Your task to perform on an android device: add a contact Image 0: 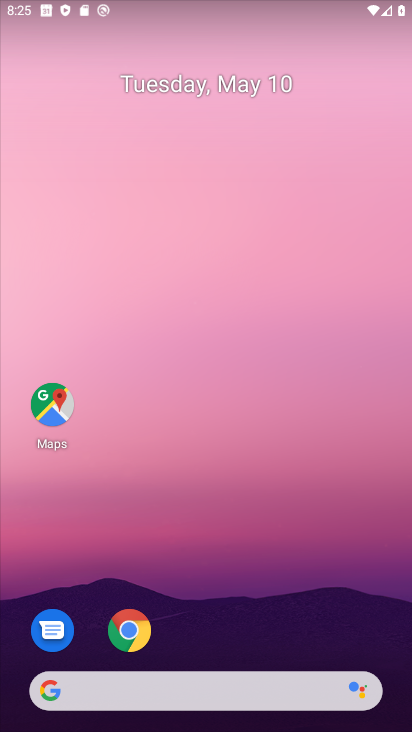
Step 0: drag from (165, 711) to (227, 225)
Your task to perform on an android device: add a contact Image 1: 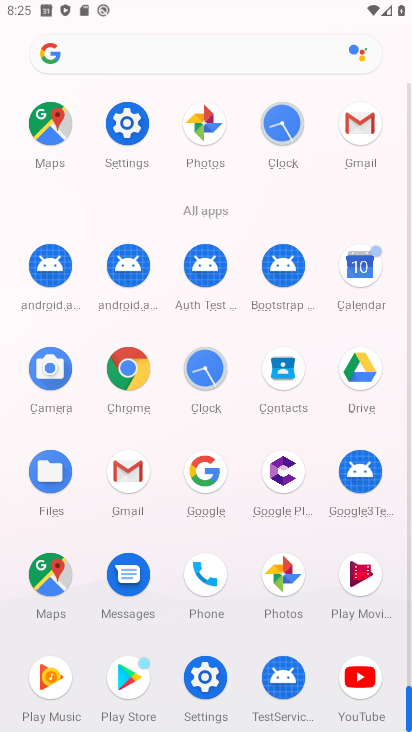
Step 1: click (292, 368)
Your task to perform on an android device: add a contact Image 2: 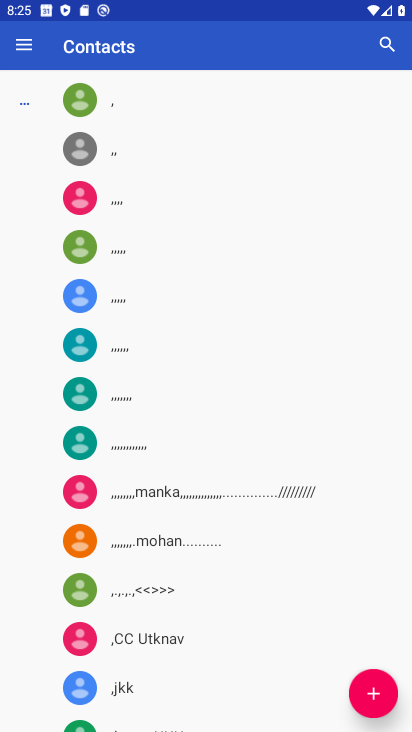
Step 2: click (371, 697)
Your task to perform on an android device: add a contact Image 3: 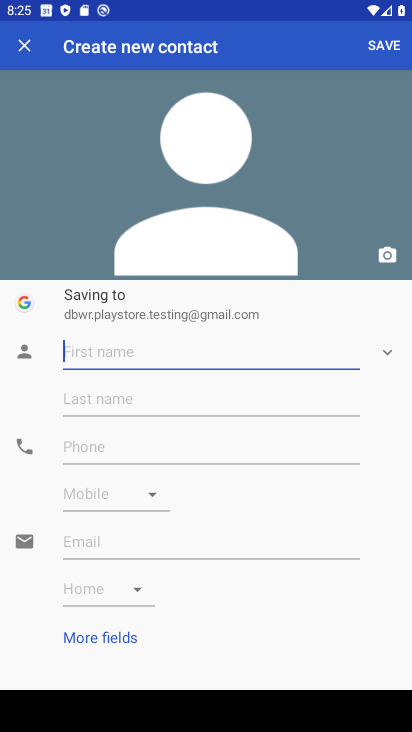
Step 3: type "jf,j"
Your task to perform on an android device: add a contact Image 4: 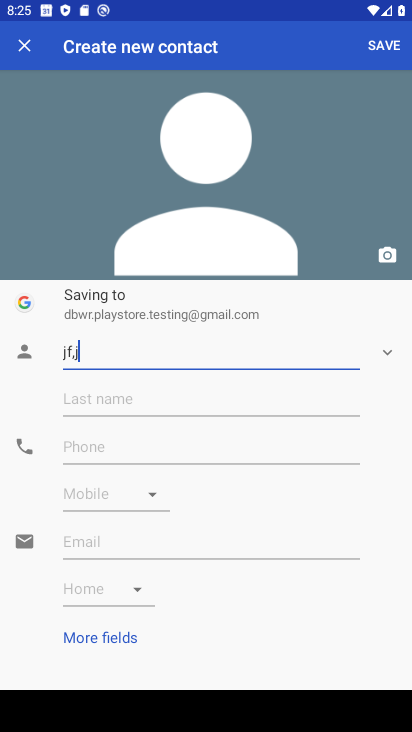
Step 4: click (129, 444)
Your task to perform on an android device: add a contact Image 5: 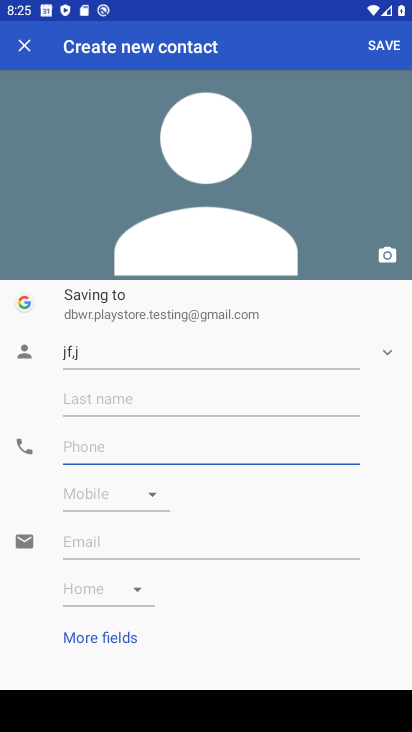
Step 5: type "869"
Your task to perform on an android device: add a contact Image 6: 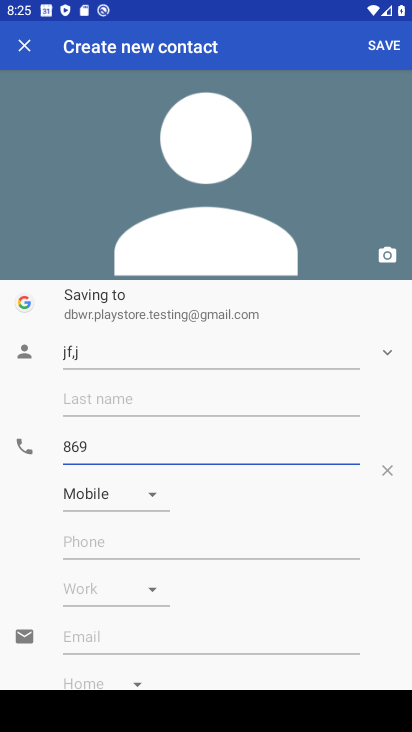
Step 6: click (389, 47)
Your task to perform on an android device: add a contact Image 7: 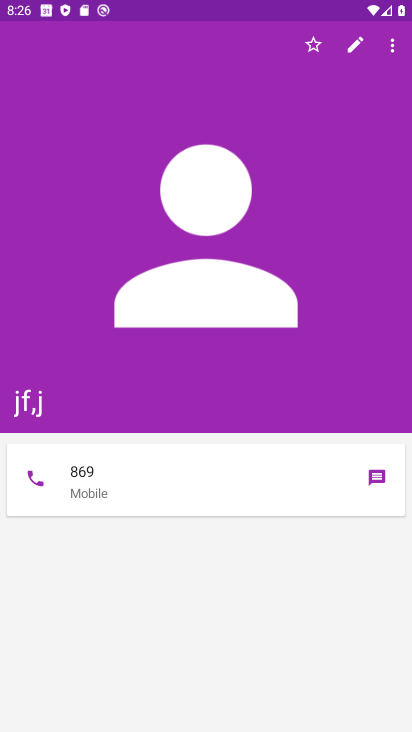
Step 7: task complete